Your task to perform on an android device: toggle javascript in the chrome app Image 0: 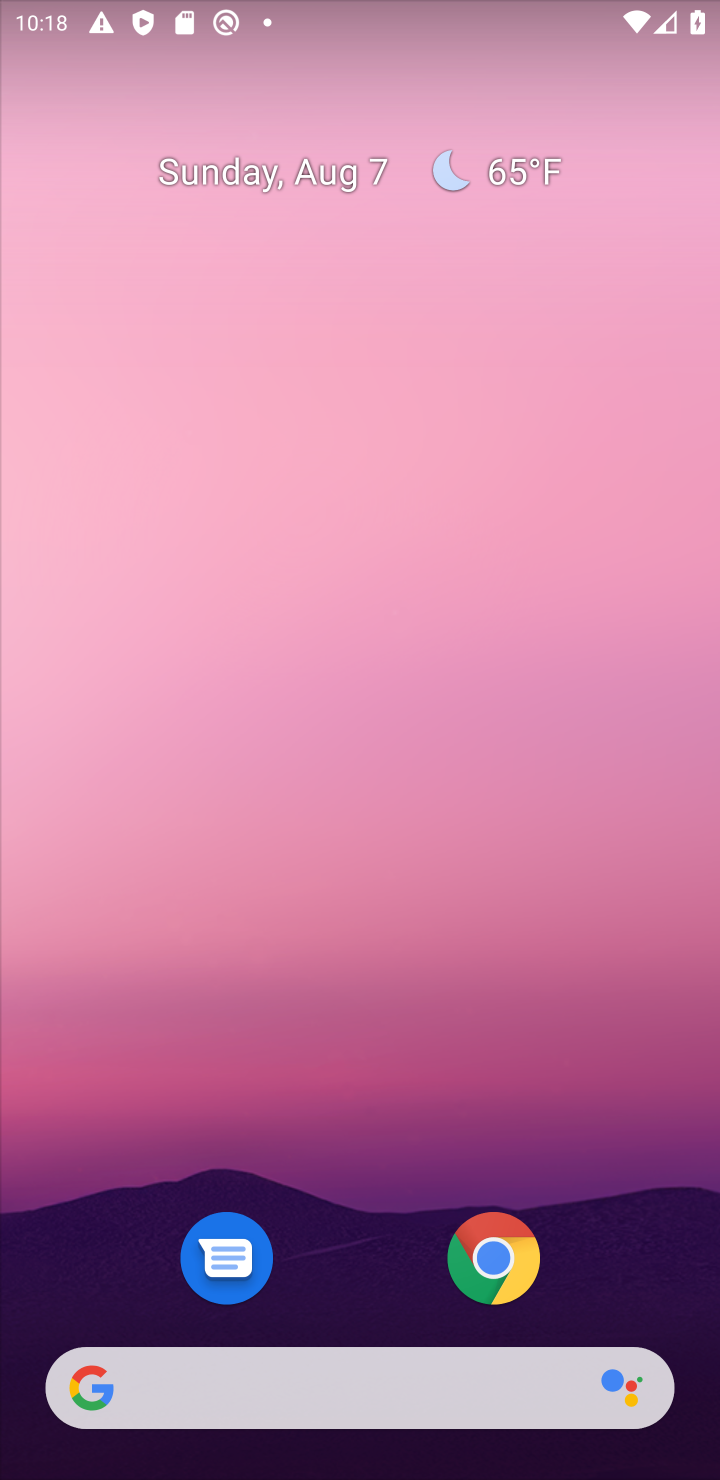
Step 0: click (516, 1296)
Your task to perform on an android device: toggle javascript in the chrome app Image 1: 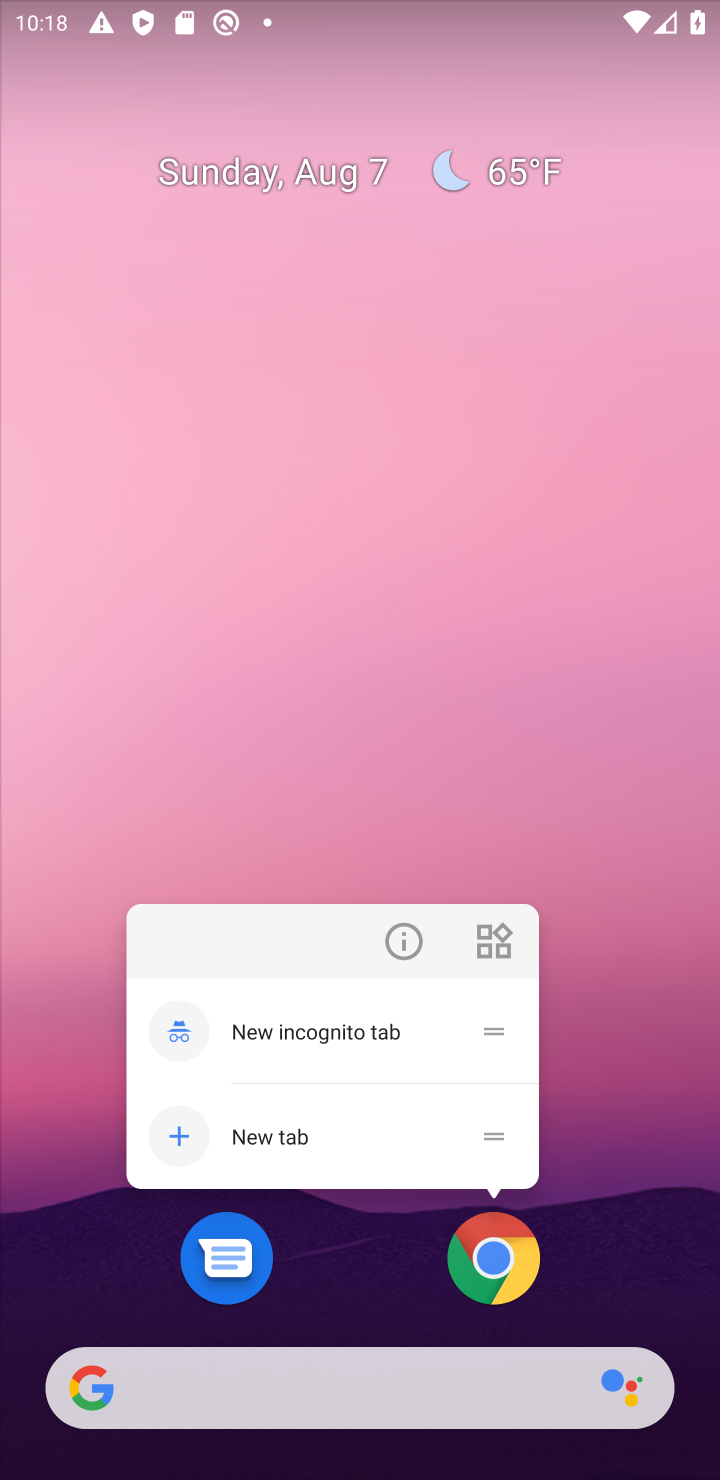
Step 1: click (534, 1254)
Your task to perform on an android device: toggle javascript in the chrome app Image 2: 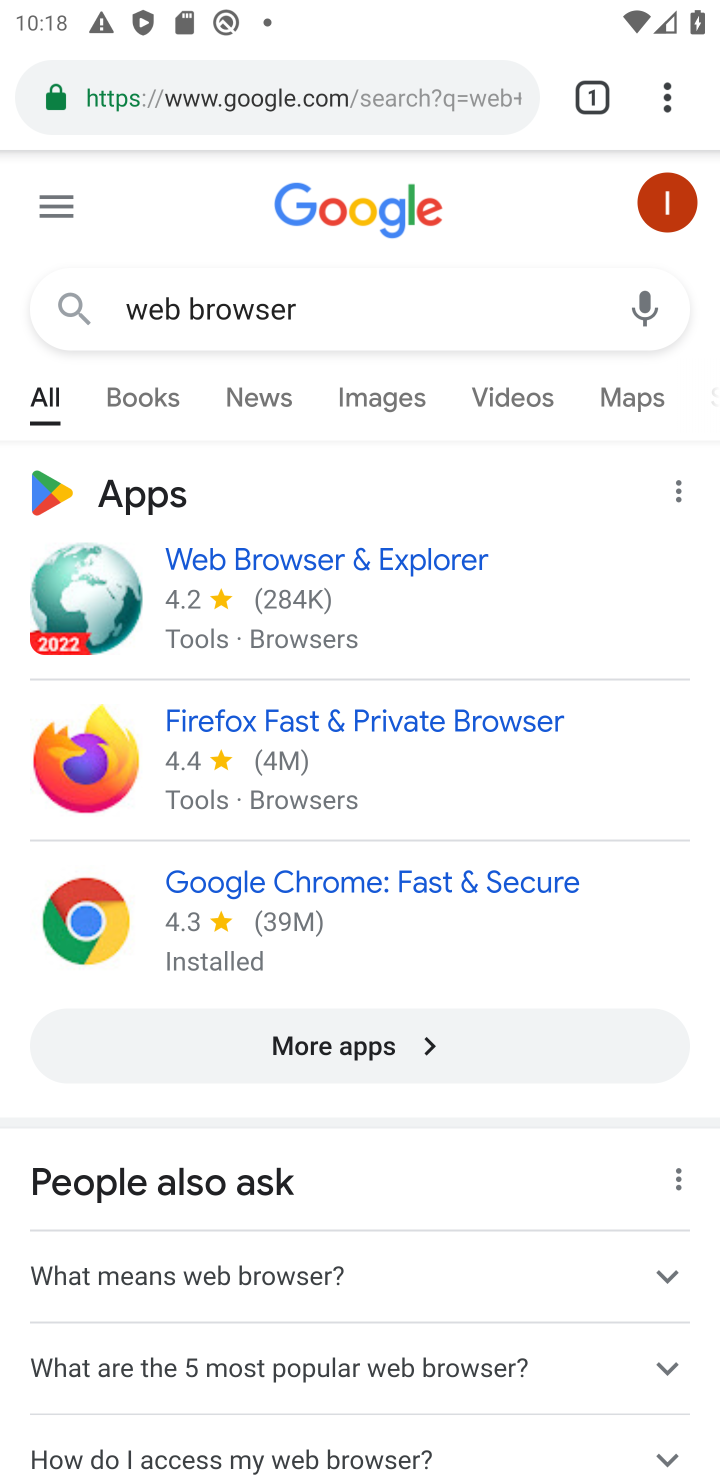
Step 2: drag from (665, 81) to (336, 1175)
Your task to perform on an android device: toggle javascript in the chrome app Image 3: 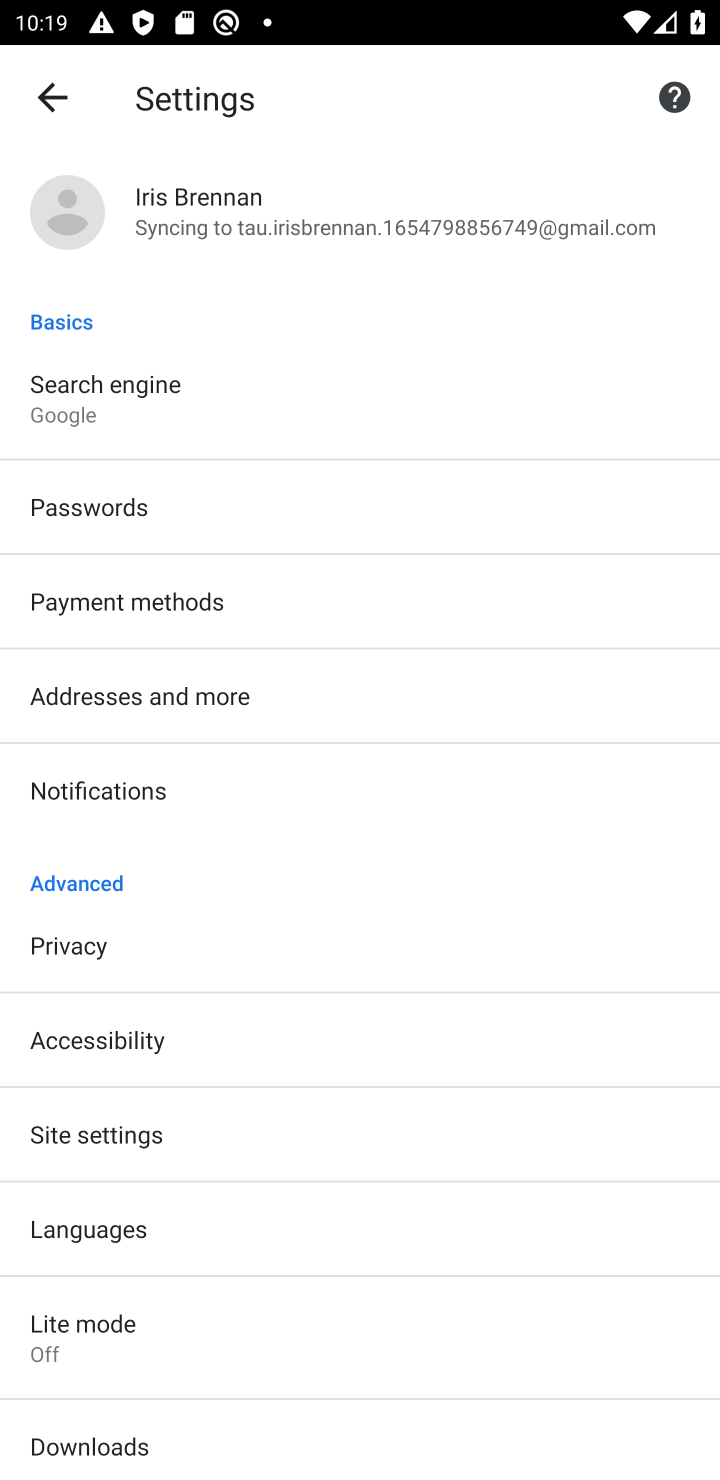
Step 3: click (160, 1156)
Your task to perform on an android device: toggle javascript in the chrome app Image 4: 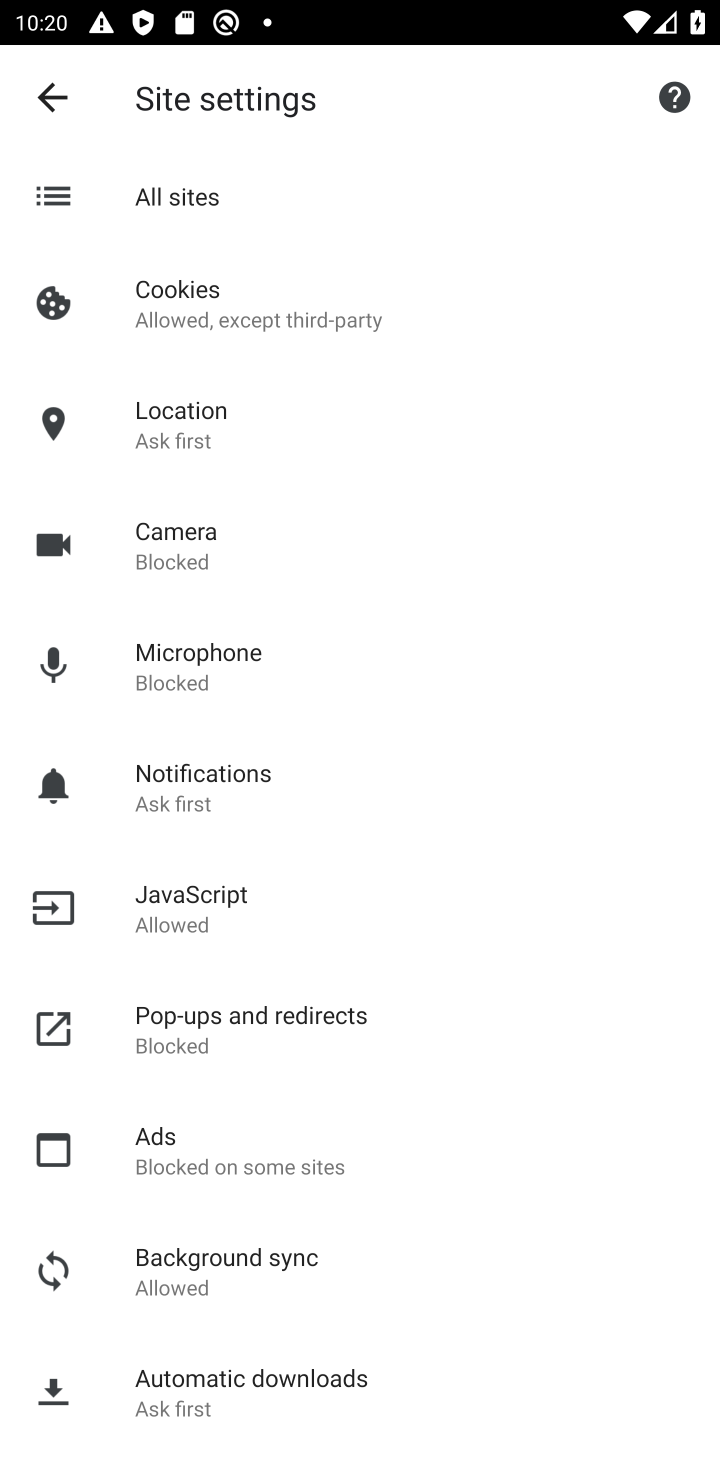
Step 4: click (188, 922)
Your task to perform on an android device: toggle javascript in the chrome app Image 5: 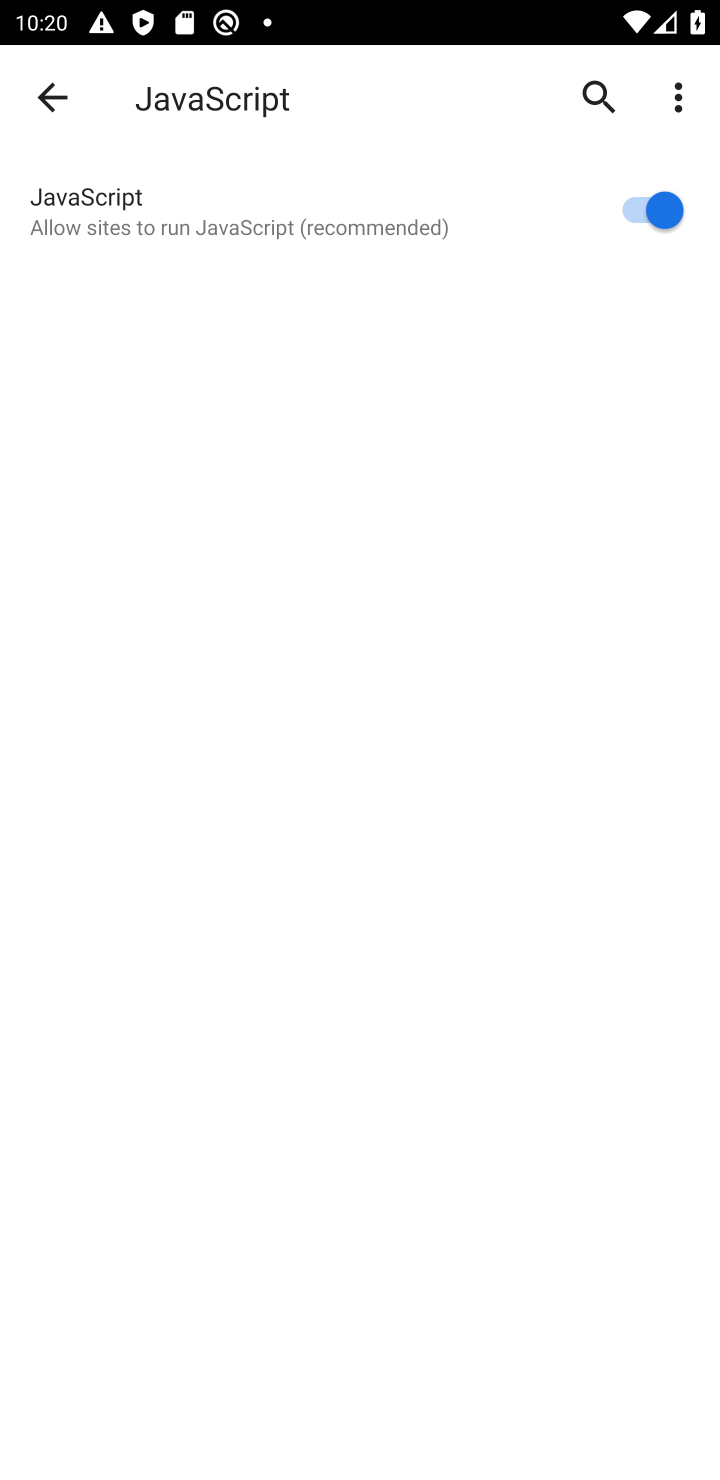
Step 5: click (495, 223)
Your task to perform on an android device: toggle javascript in the chrome app Image 6: 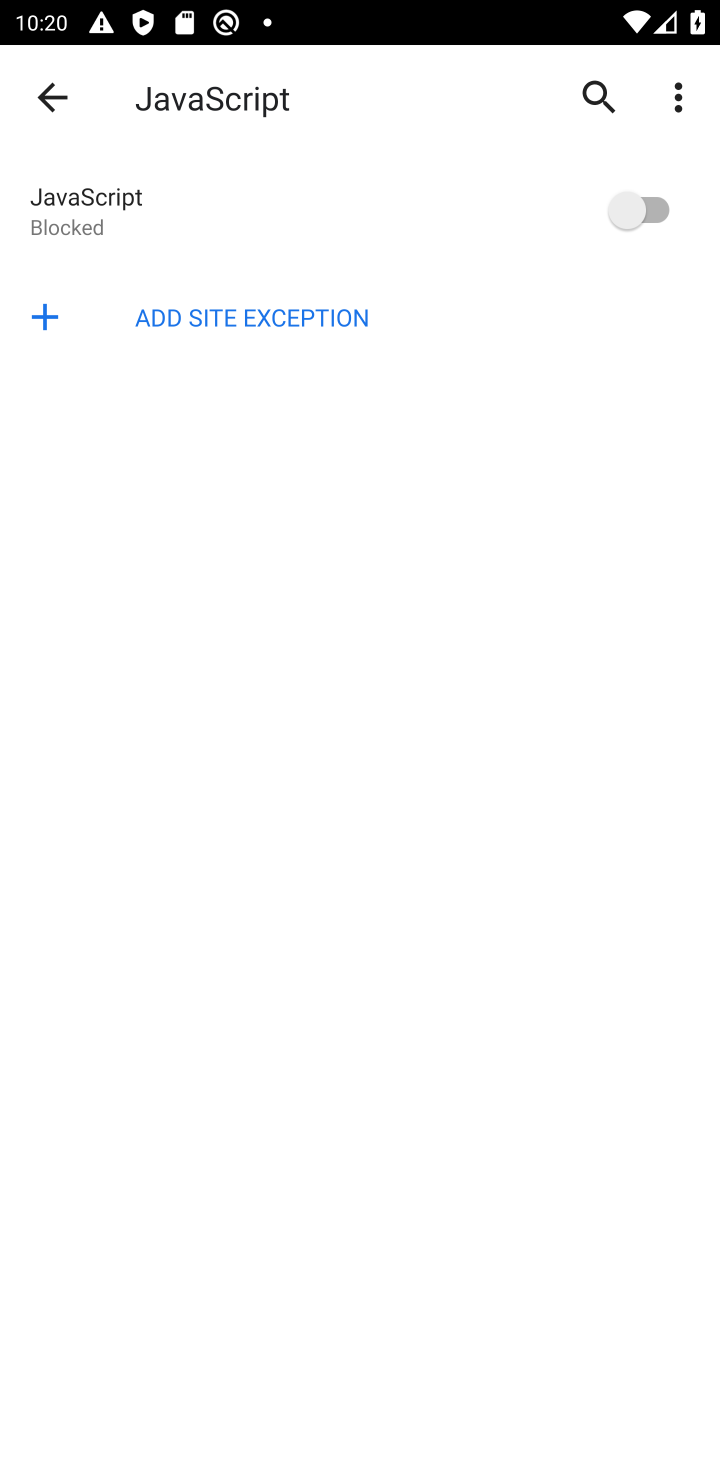
Step 6: task complete